Your task to perform on an android device: turn on notifications settings in the gmail app Image 0: 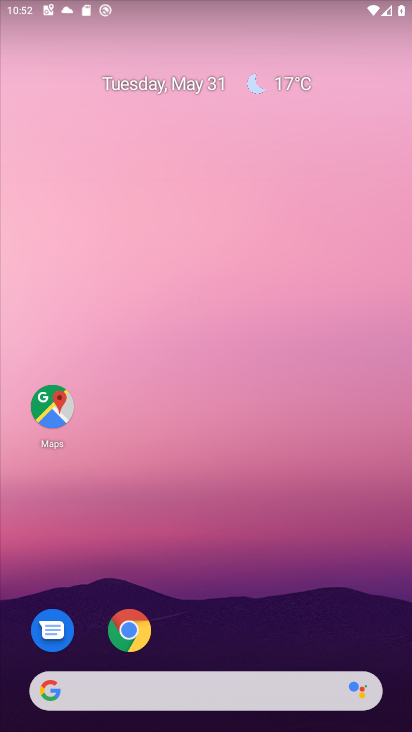
Step 0: drag from (253, 558) to (294, 161)
Your task to perform on an android device: turn on notifications settings in the gmail app Image 1: 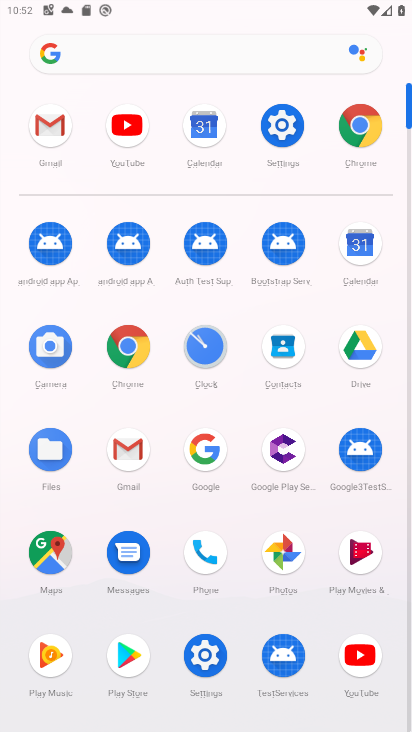
Step 1: click (56, 125)
Your task to perform on an android device: turn on notifications settings in the gmail app Image 2: 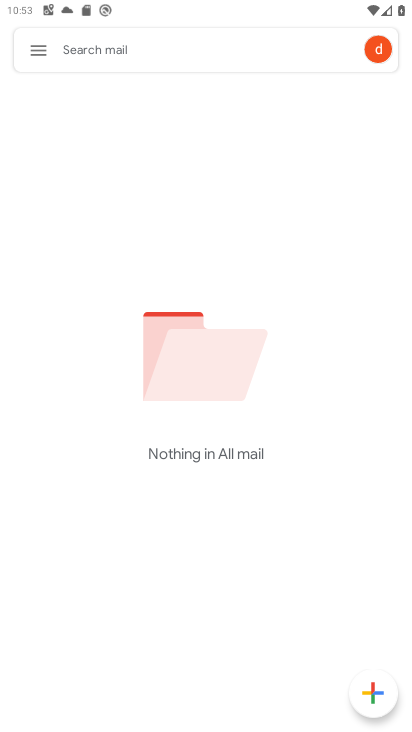
Step 2: click (53, 54)
Your task to perform on an android device: turn on notifications settings in the gmail app Image 3: 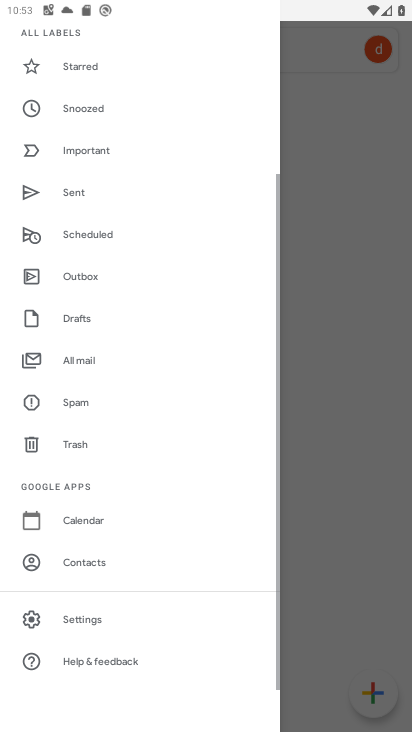
Step 3: click (134, 628)
Your task to perform on an android device: turn on notifications settings in the gmail app Image 4: 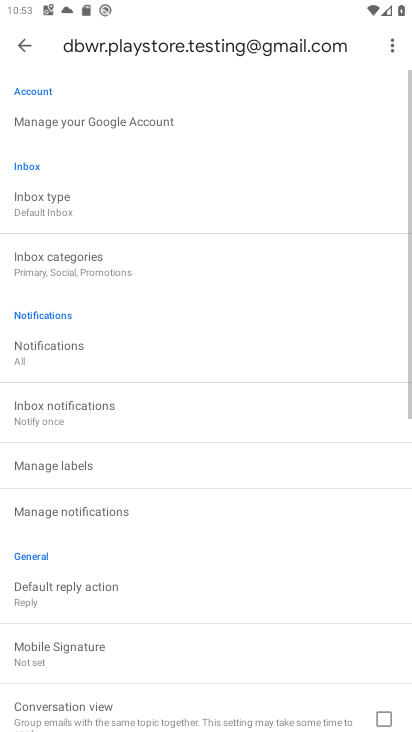
Step 4: drag from (128, 179) to (94, 669)
Your task to perform on an android device: turn on notifications settings in the gmail app Image 5: 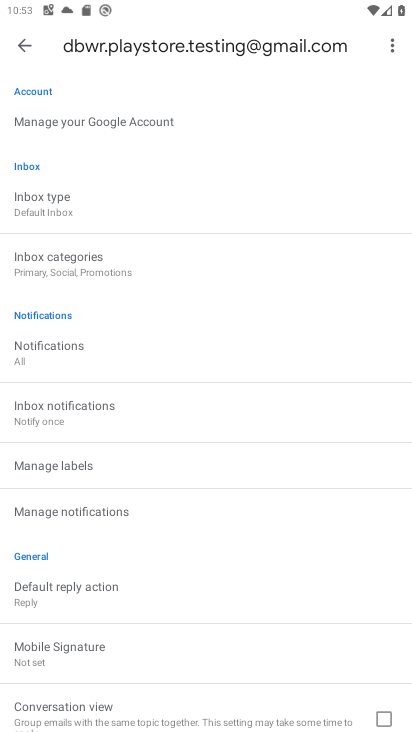
Step 5: click (71, 507)
Your task to perform on an android device: turn on notifications settings in the gmail app Image 6: 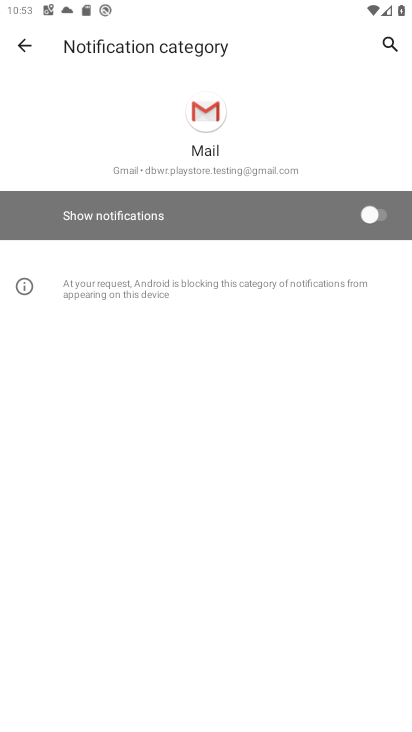
Step 6: click (360, 199)
Your task to perform on an android device: turn on notifications settings in the gmail app Image 7: 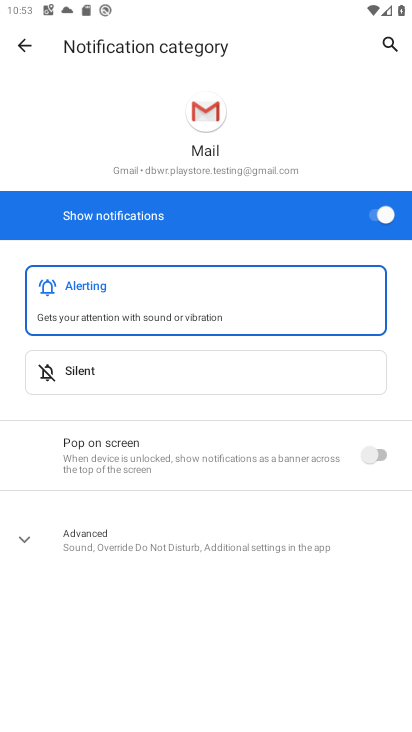
Step 7: task complete